Your task to perform on an android device: Show the shopping cart on costco.com. Add acer nitro to the cart on costco.com Image 0: 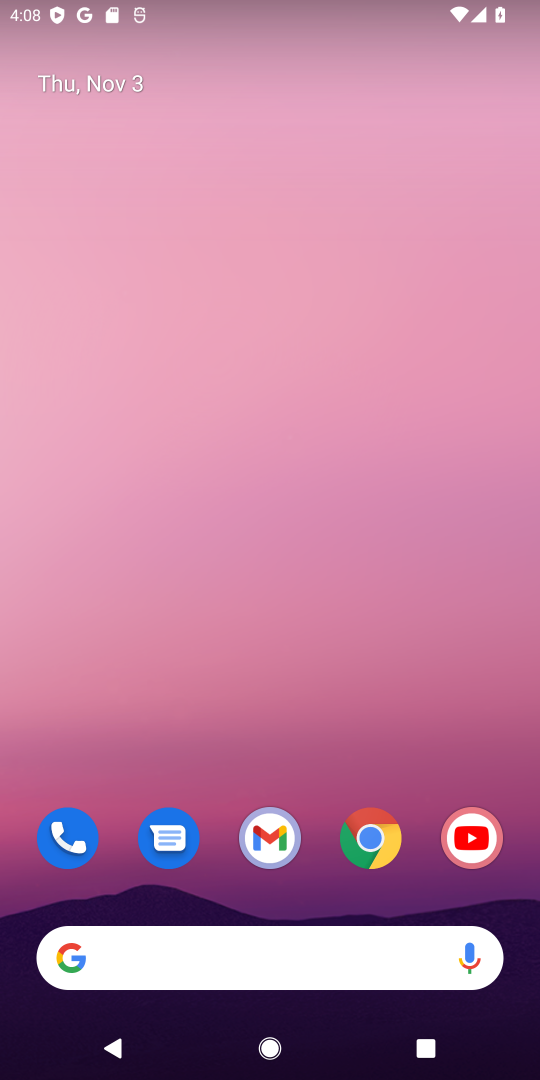
Step 0: click (362, 839)
Your task to perform on an android device: Show the shopping cart on costco.com. Add acer nitro to the cart on costco.com Image 1: 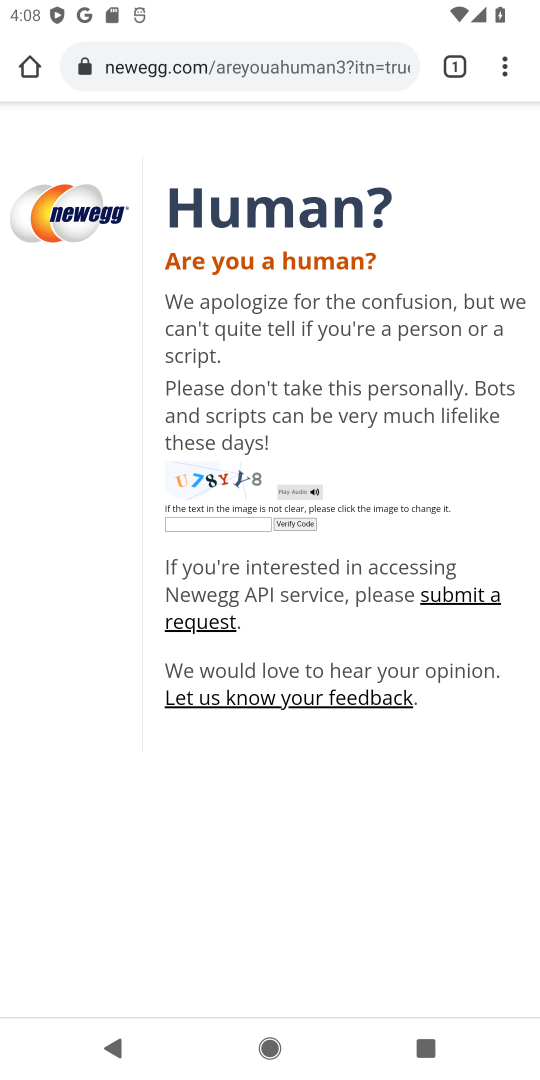
Step 1: click (203, 64)
Your task to perform on an android device: Show the shopping cart on costco.com. Add acer nitro to the cart on costco.com Image 2: 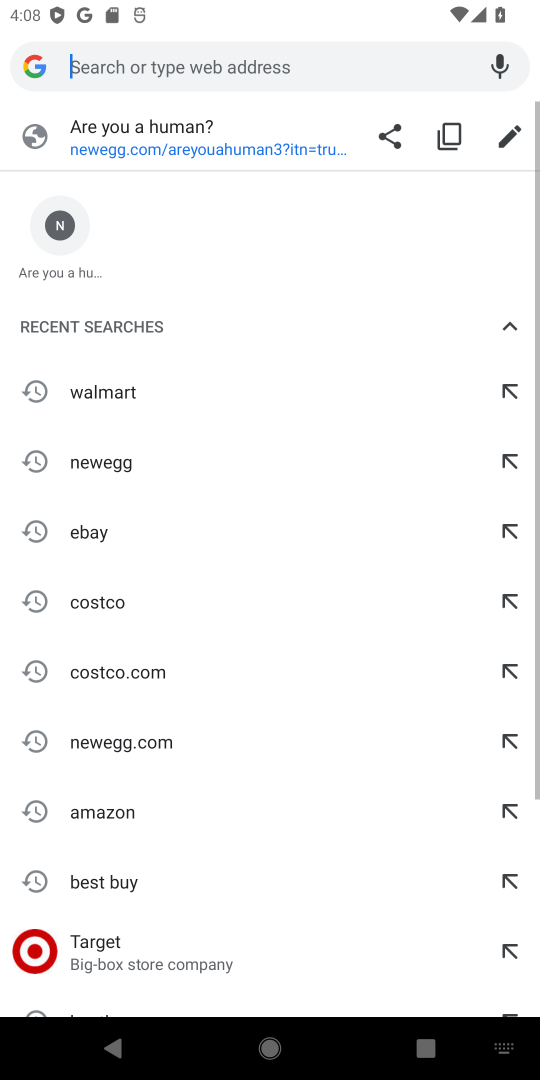
Step 2: click (102, 603)
Your task to perform on an android device: Show the shopping cart on costco.com. Add acer nitro to the cart on costco.com Image 3: 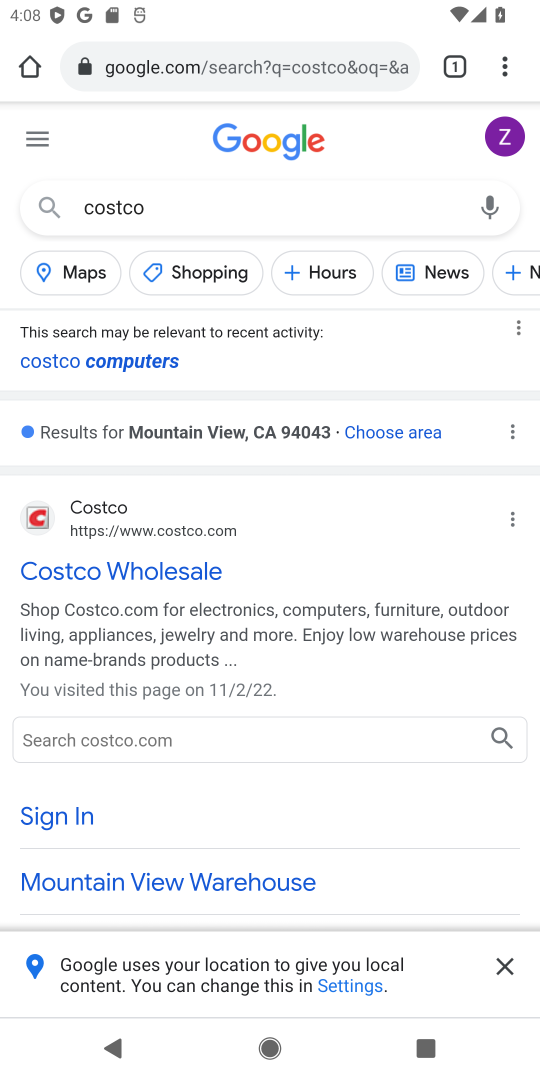
Step 3: click (101, 566)
Your task to perform on an android device: Show the shopping cart on costco.com. Add acer nitro to the cart on costco.com Image 4: 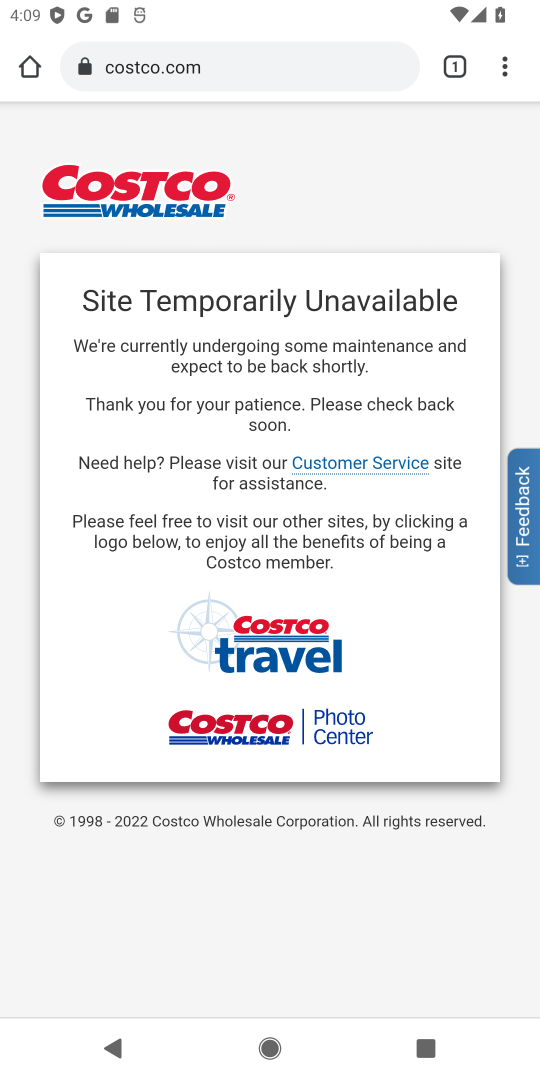
Step 4: task complete